Your task to perform on an android device: What's on my calendar tomorrow? Image 0: 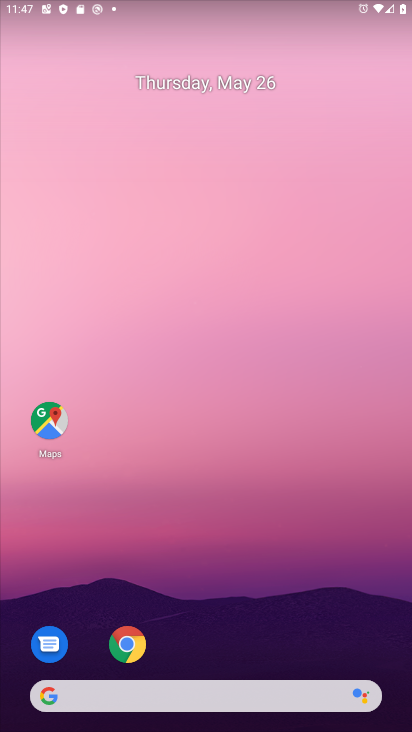
Step 0: drag from (251, 650) to (252, 227)
Your task to perform on an android device: What's on my calendar tomorrow? Image 1: 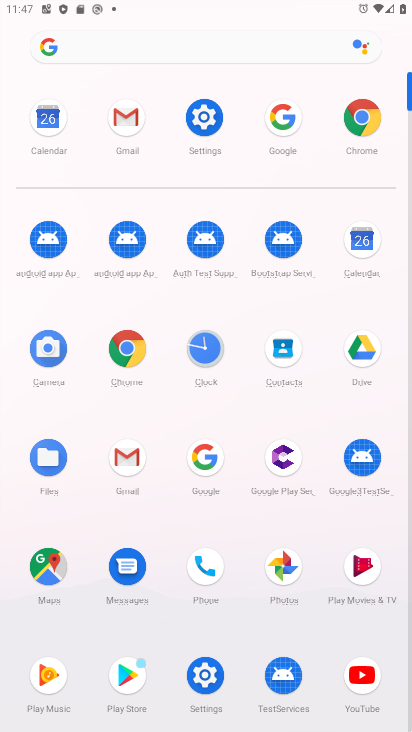
Step 1: click (356, 247)
Your task to perform on an android device: What's on my calendar tomorrow? Image 2: 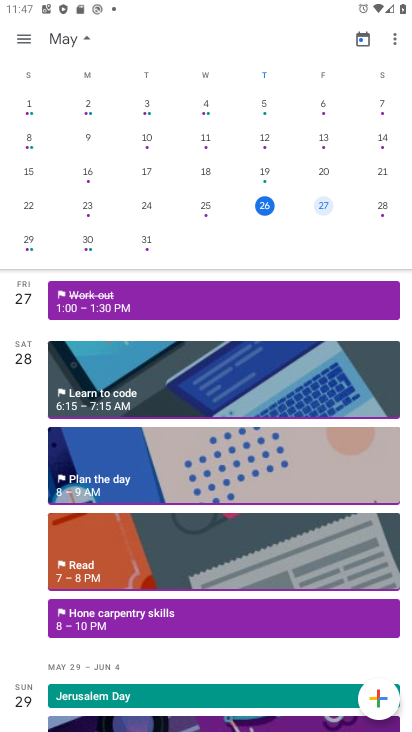
Step 2: click (325, 216)
Your task to perform on an android device: What's on my calendar tomorrow? Image 3: 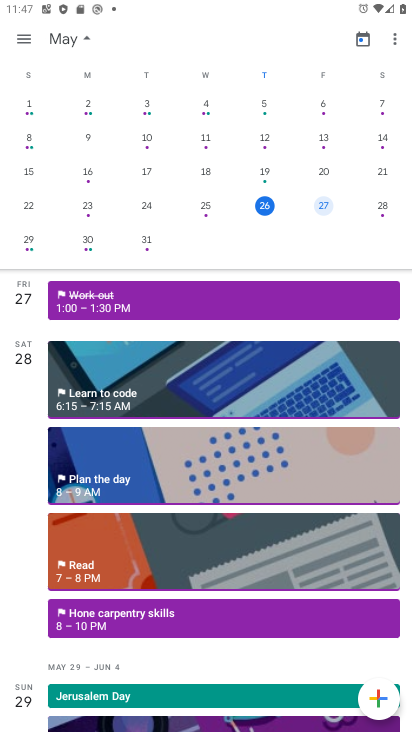
Step 3: click (315, 202)
Your task to perform on an android device: What's on my calendar tomorrow? Image 4: 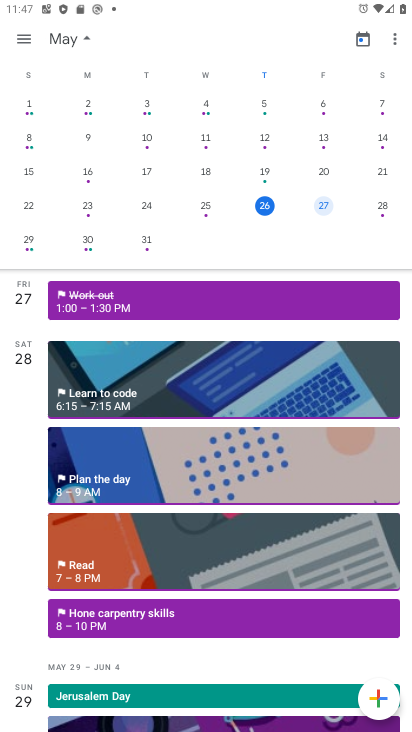
Step 4: task complete